Your task to perform on an android device: uninstall "File Manager" Image 0: 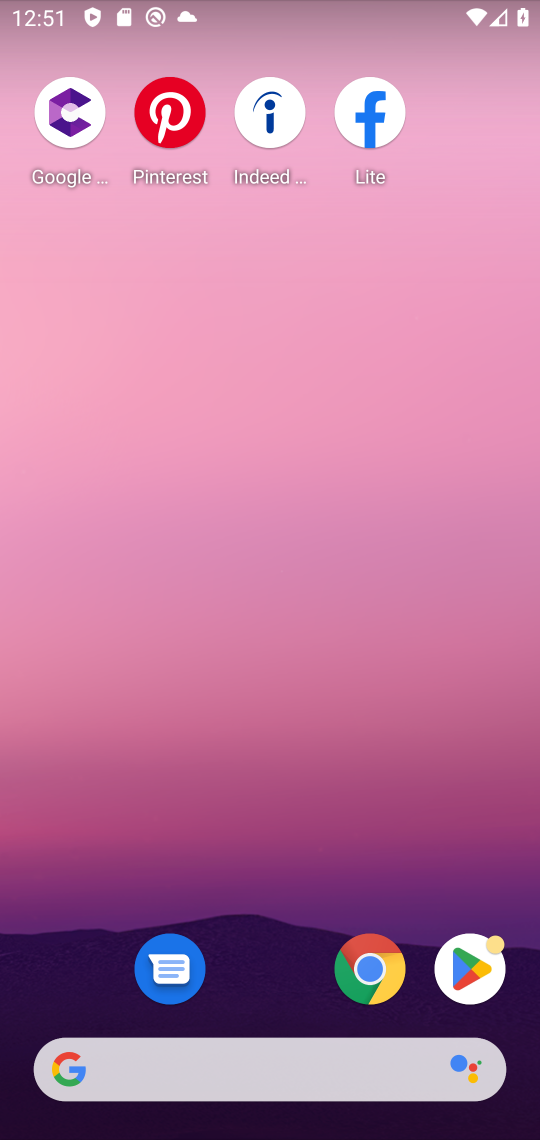
Step 0: press home button
Your task to perform on an android device: uninstall "File Manager" Image 1: 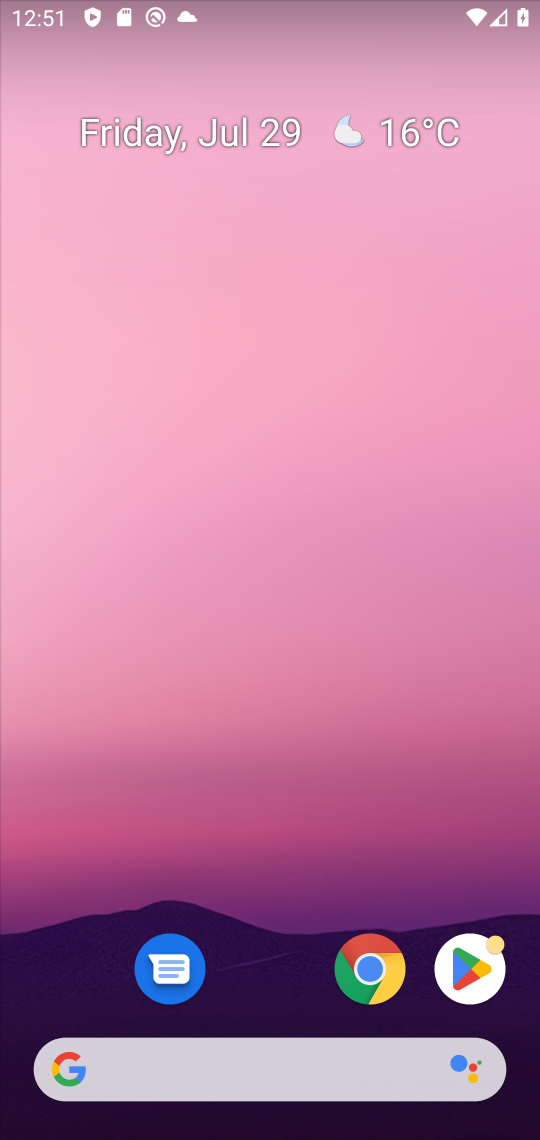
Step 1: click (459, 982)
Your task to perform on an android device: uninstall "File Manager" Image 2: 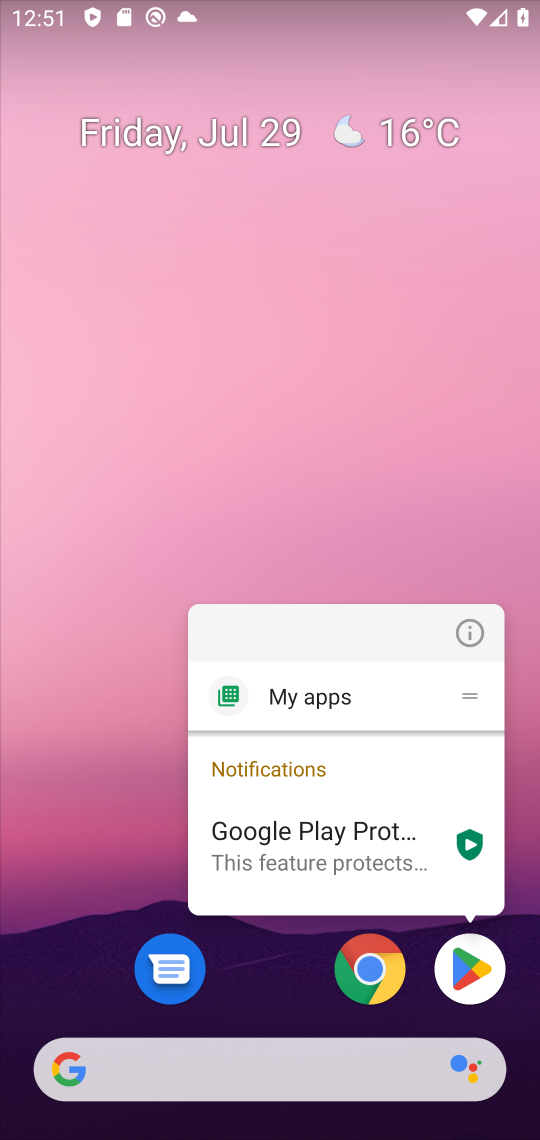
Step 2: click (469, 985)
Your task to perform on an android device: uninstall "File Manager" Image 3: 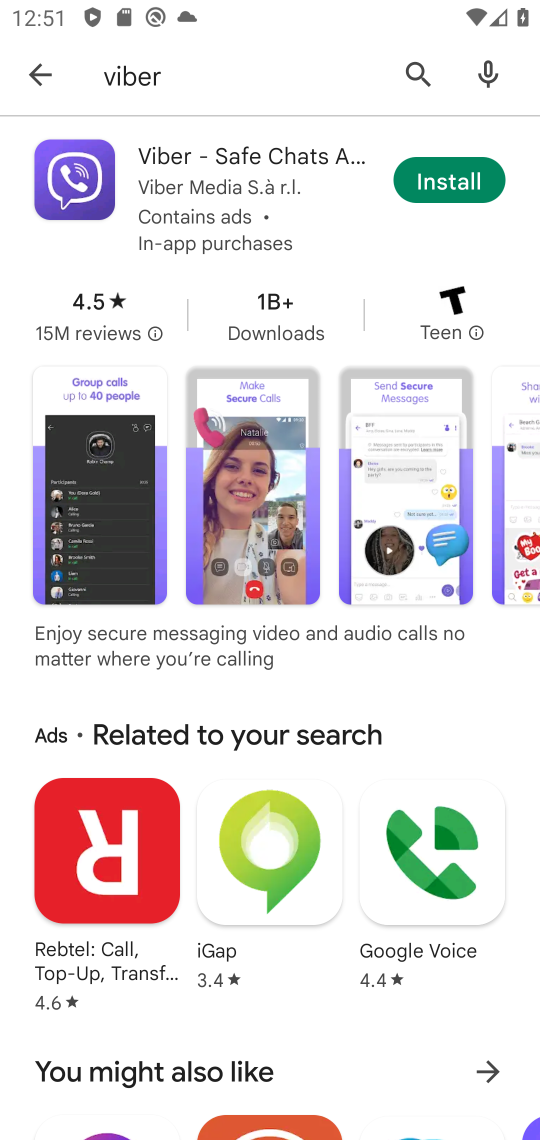
Step 3: click (420, 59)
Your task to perform on an android device: uninstall "File Manager" Image 4: 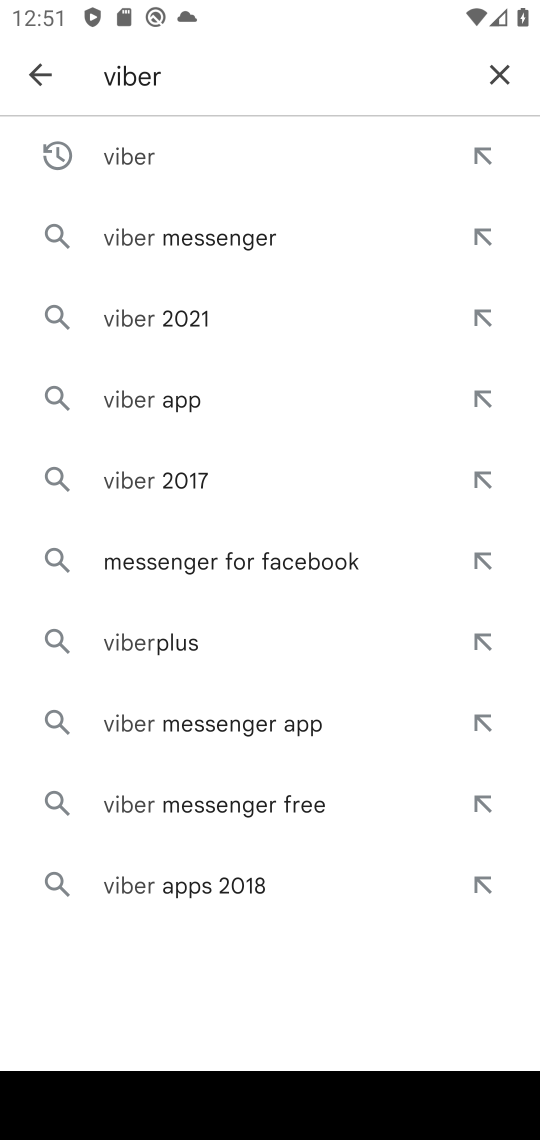
Step 4: click (498, 65)
Your task to perform on an android device: uninstall "File Manager" Image 5: 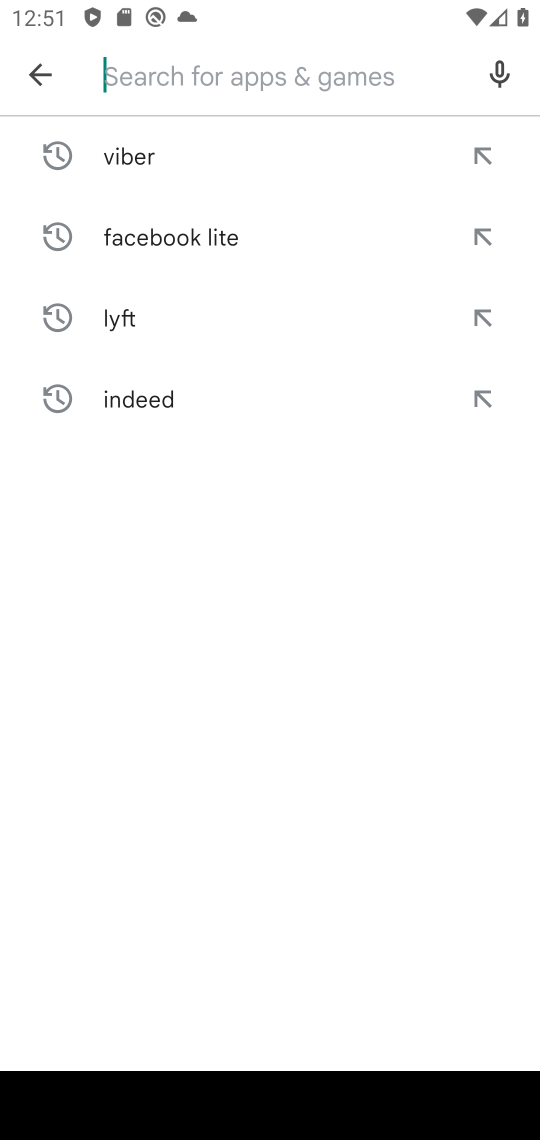
Step 5: click (128, 76)
Your task to perform on an android device: uninstall "File Manager" Image 6: 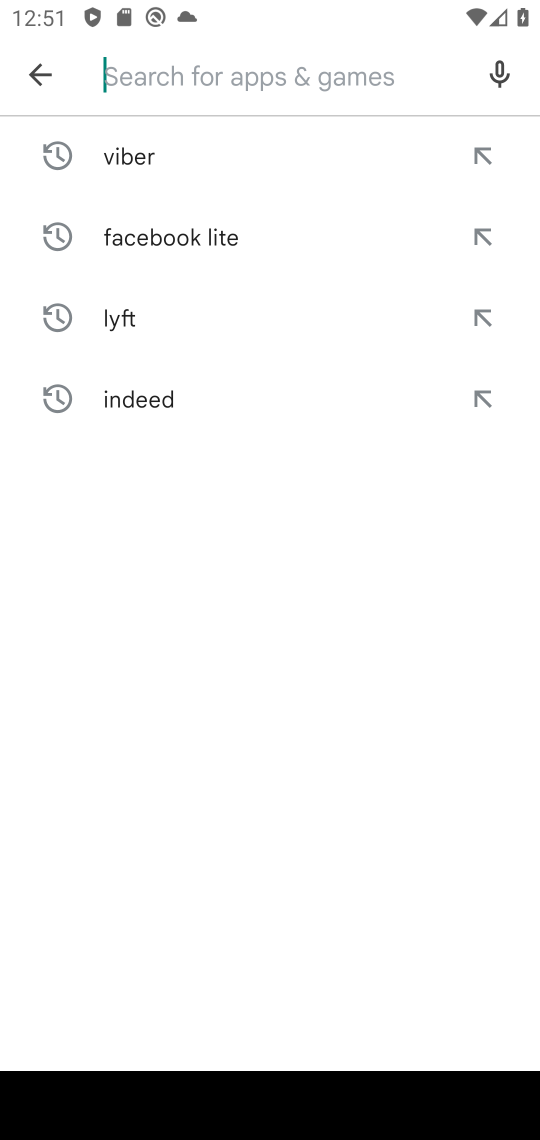
Step 6: type "file manager"
Your task to perform on an android device: uninstall "File Manager" Image 7: 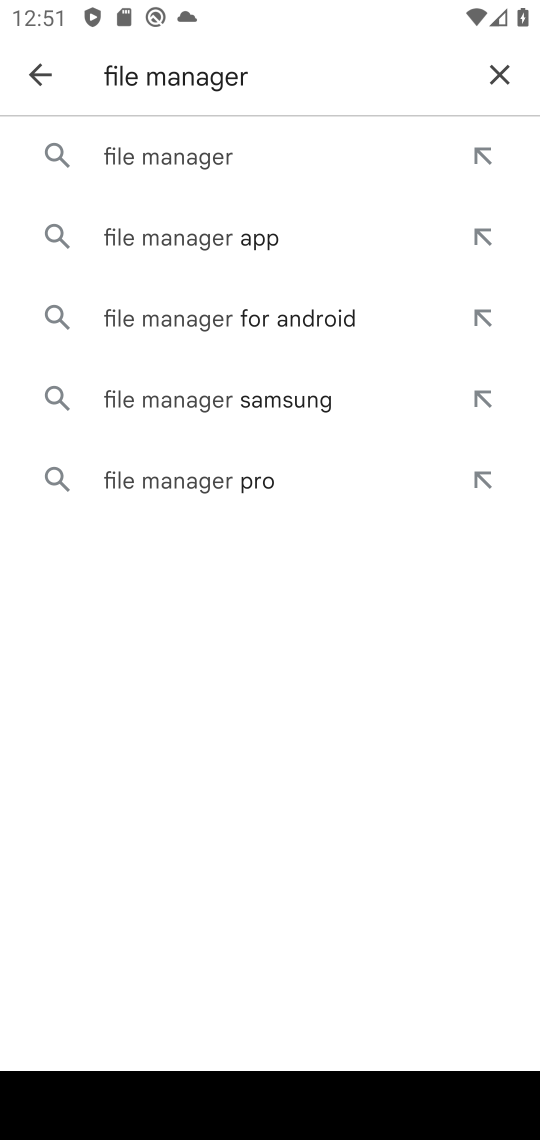
Step 7: click (226, 168)
Your task to perform on an android device: uninstall "File Manager" Image 8: 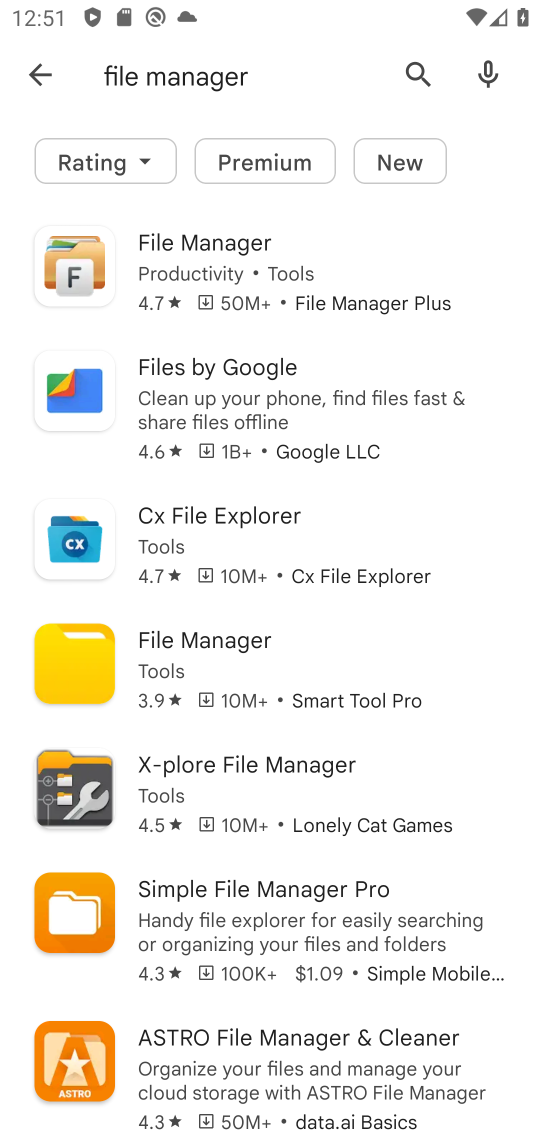
Step 8: click (241, 277)
Your task to perform on an android device: uninstall "File Manager" Image 9: 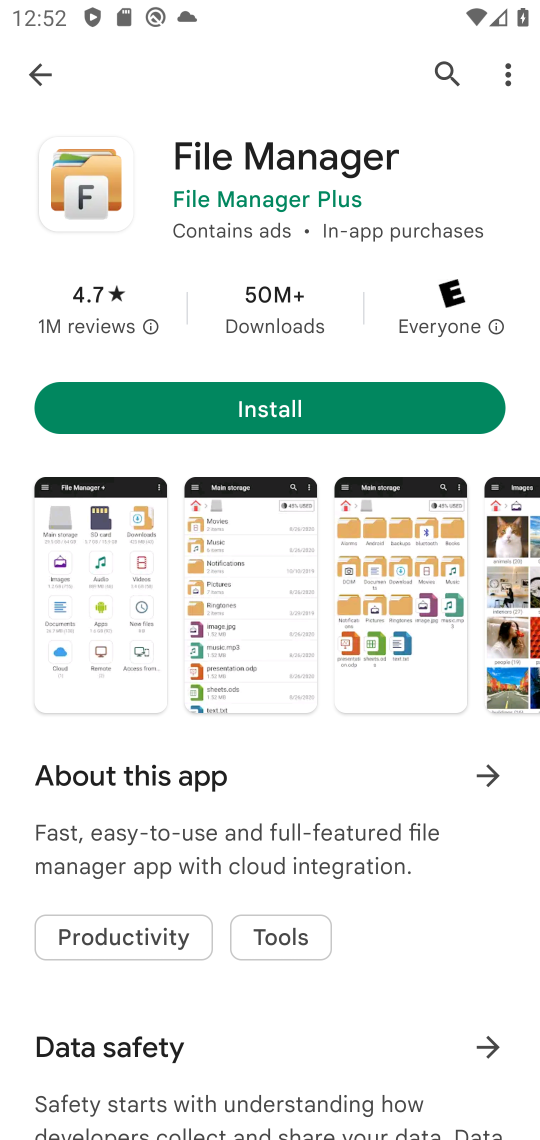
Step 9: task complete